Your task to perform on an android device: turn off picture-in-picture Image 0: 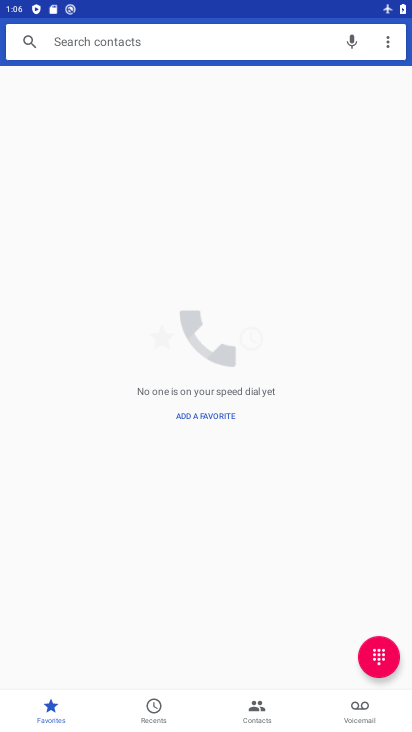
Step 0: task complete